Your task to perform on an android device: Search for sushi restaurants on Maps Image 0: 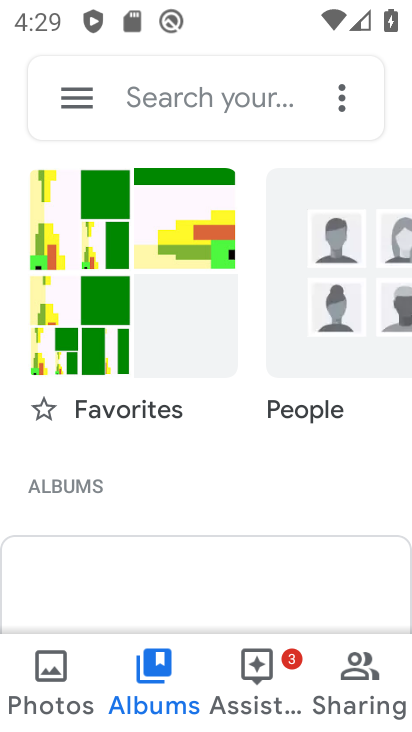
Step 0: press home button
Your task to perform on an android device: Search for sushi restaurants on Maps Image 1: 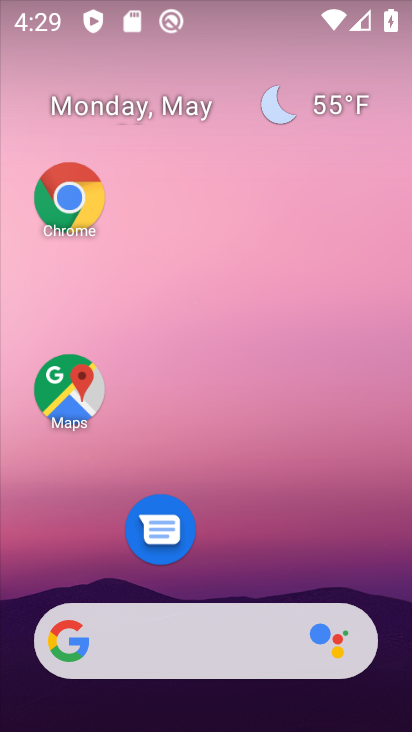
Step 1: drag from (223, 653) to (284, 212)
Your task to perform on an android device: Search for sushi restaurants on Maps Image 2: 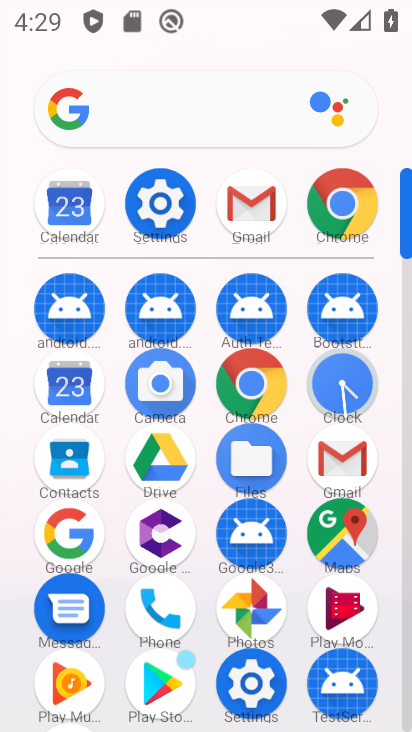
Step 2: click (349, 542)
Your task to perform on an android device: Search for sushi restaurants on Maps Image 3: 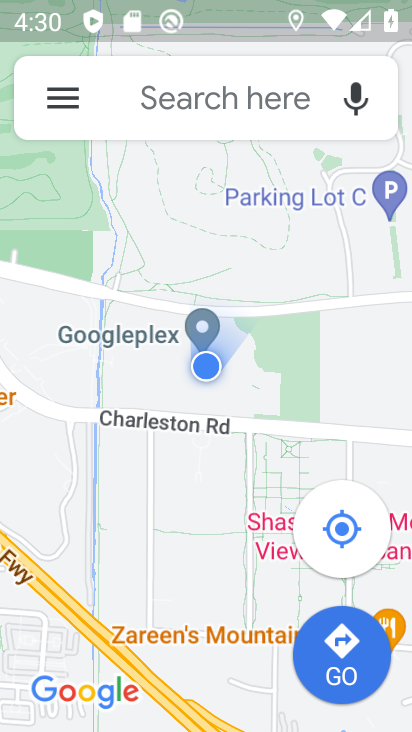
Step 3: click (224, 92)
Your task to perform on an android device: Search for sushi restaurants on Maps Image 4: 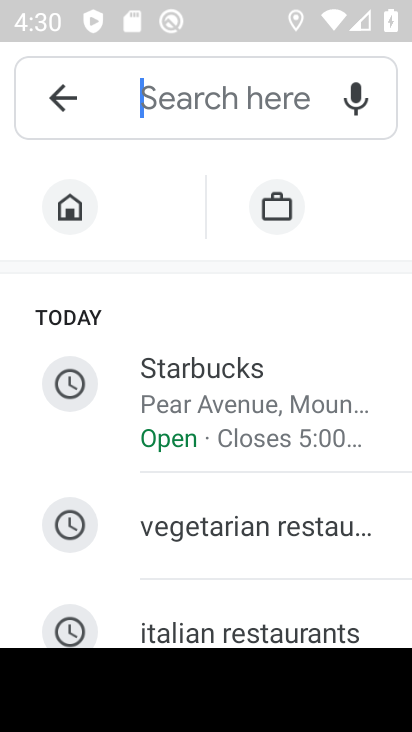
Step 4: drag from (240, 524) to (259, 263)
Your task to perform on an android device: Search for sushi restaurants on Maps Image 5: 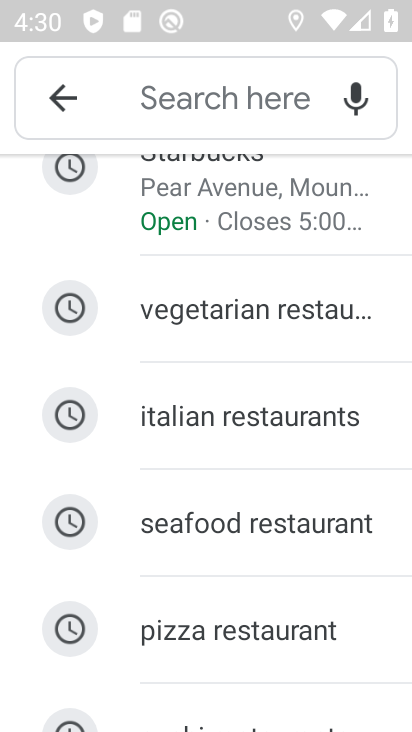
Step 5: drag from (220, 503) to (275, 202)
Your task to perform on an android device: Search for sushi restaurants on Maps Image 6: 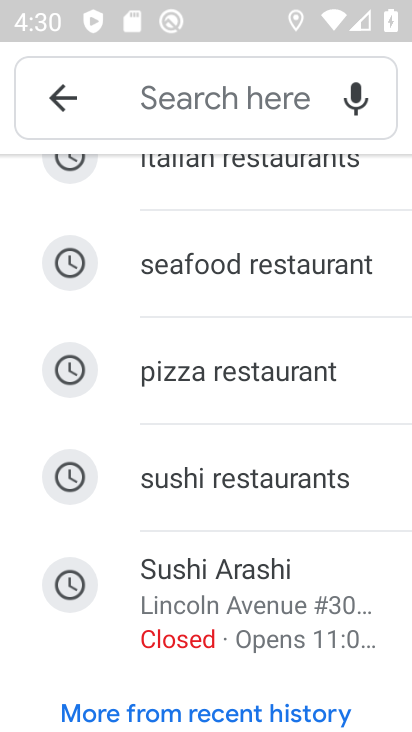
Step 6: click (255, 475)
Your task to perform on an android device: Search for sushi restaurants on Maps Image 7: 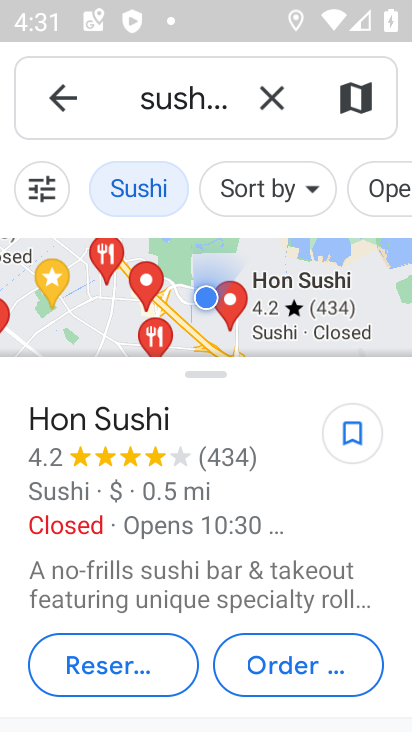
Step 7: task complete